Your task to perform on an android device: add a contact in the contacts app Image 0: 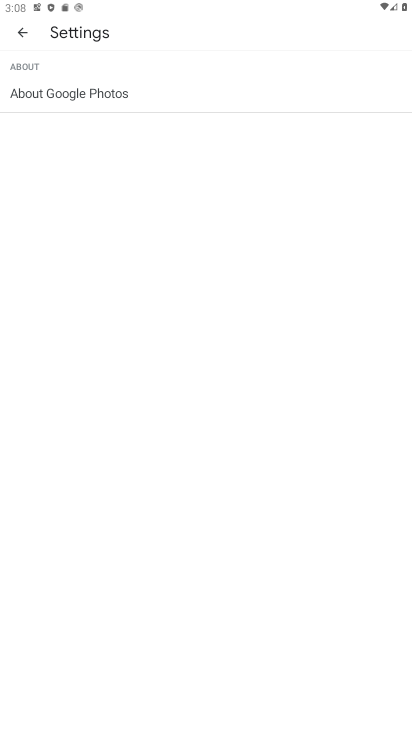
Step 0: press home button
Your task to perform on an android device: add a contact in the contacts app Image 1: 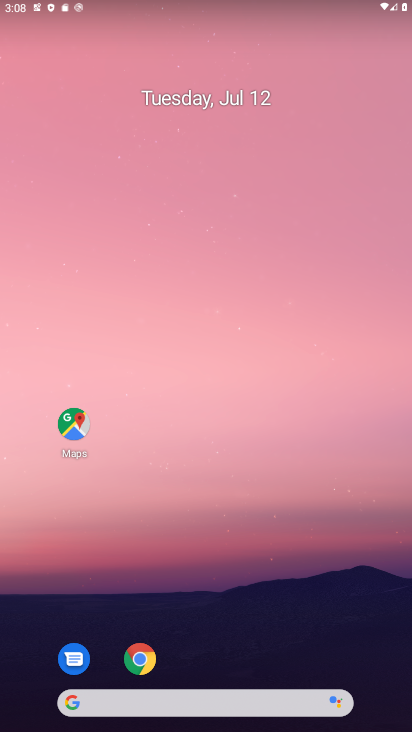
Step 1: drag from (223, 714) to (220, 105)
Your task to perform on an android device: add a contact in the contacts app Image 2: 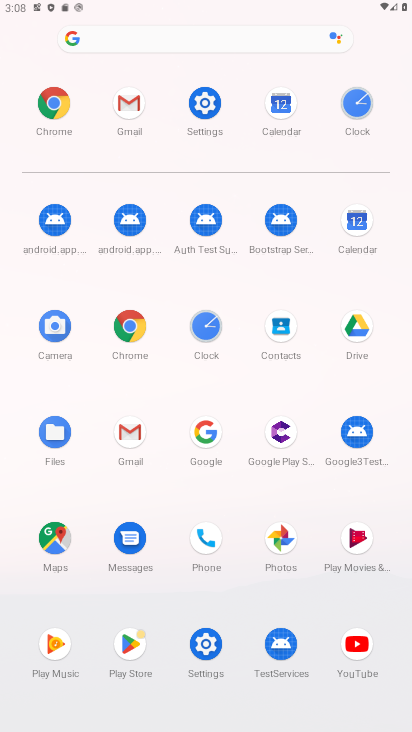
Step 2: click (280, 327)
Your task to perform on an android device: add a contact in the contacts app Image 3: 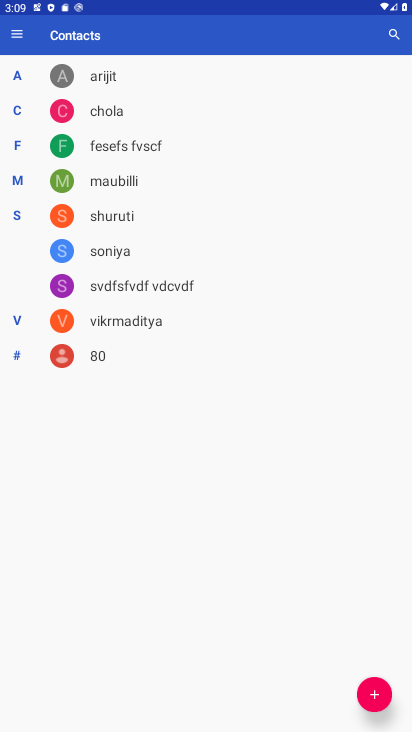
Step 3: click (371, 691)
Your task to perform on an android device: add a contact in the contacts app Image 4: 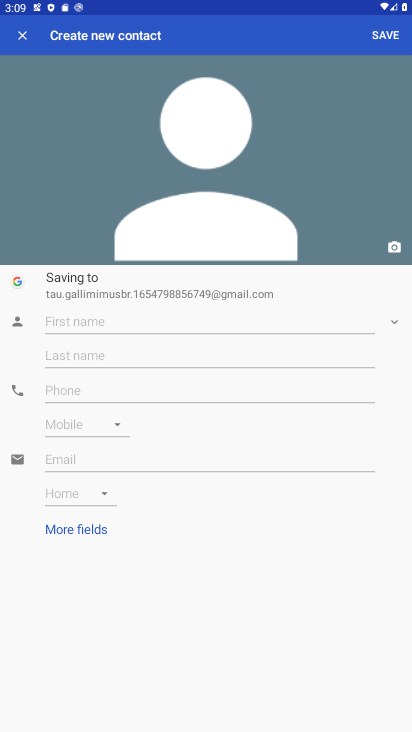
Step 4: click (113, 322)
Your task to perform on an android device: add a contact in the contacts app Image 5: 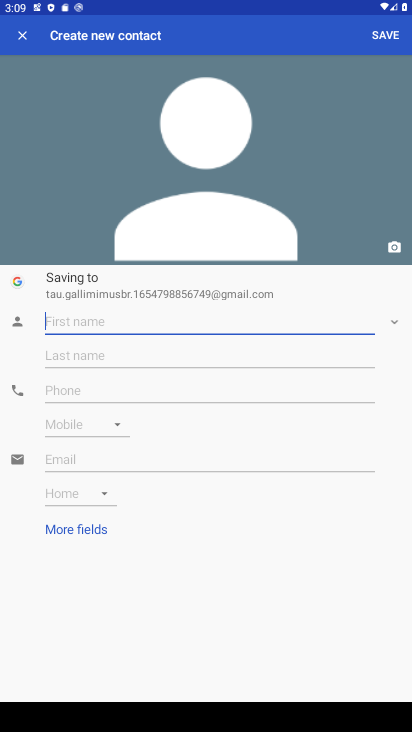
Step 5: type "chera"
Your task to perform on an android device: add a contact in the contacts app Image 6: 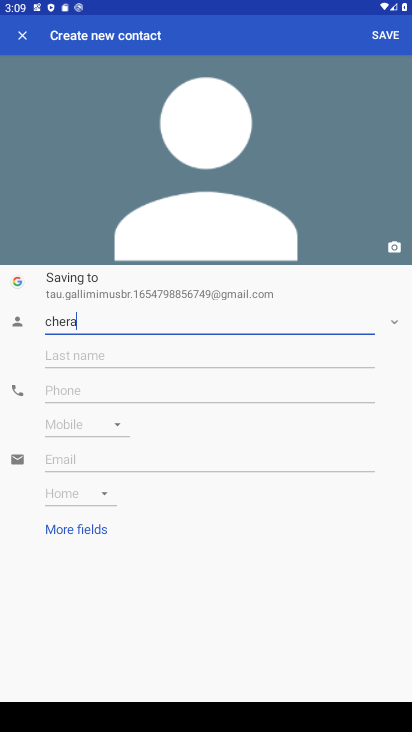
Step 6: click (389, 33)
Your task to perform on an android device: add a contact in the contacts app Image 7: 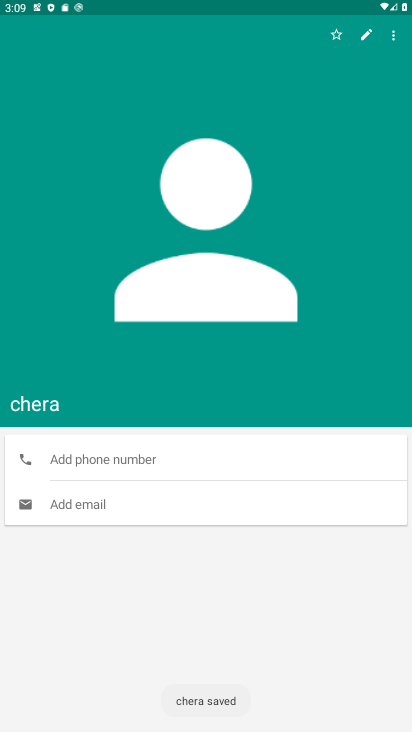
Step 7: click (122, 397)
Your task to perform on an android device: add a contact in the contacts app Image 8: 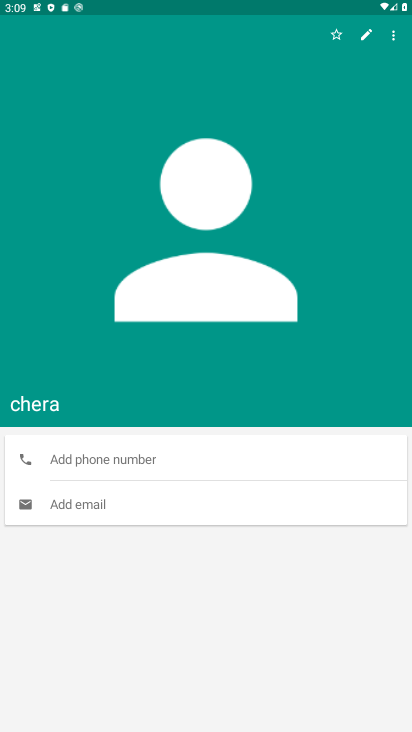
Step 8: task complete